Your task to perform on an android device: Search for vegetarian restaurants on Maps Image 0: 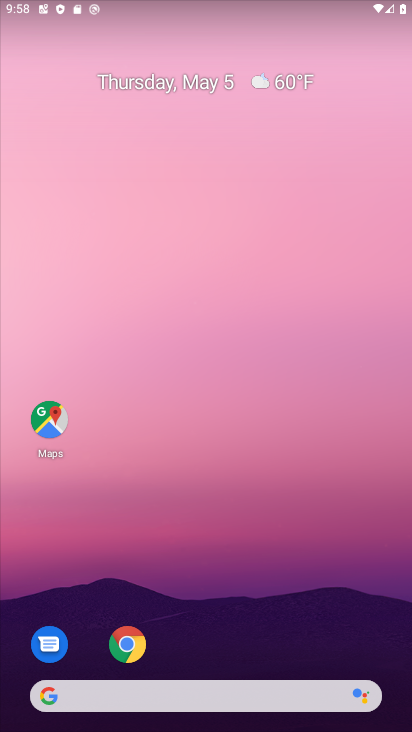
Step 0: click (49, 422)
Your task to perform on an android device: Search for vegetarian restaurants on Maps Image 1: 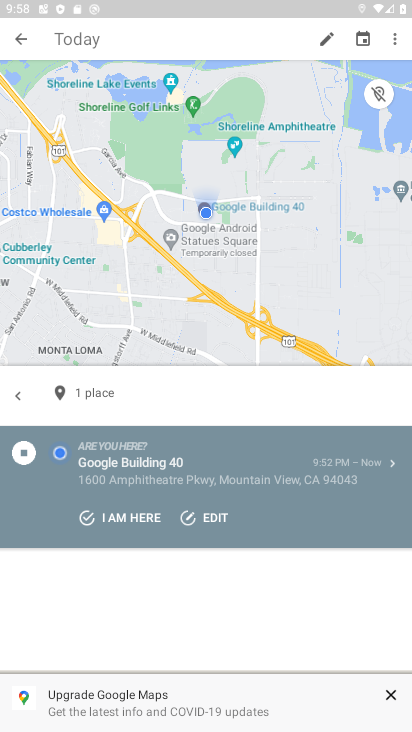
Step 1: press back button
Your task to perform on an android device: Search for vegetarian restaurants on Maps Image 2: 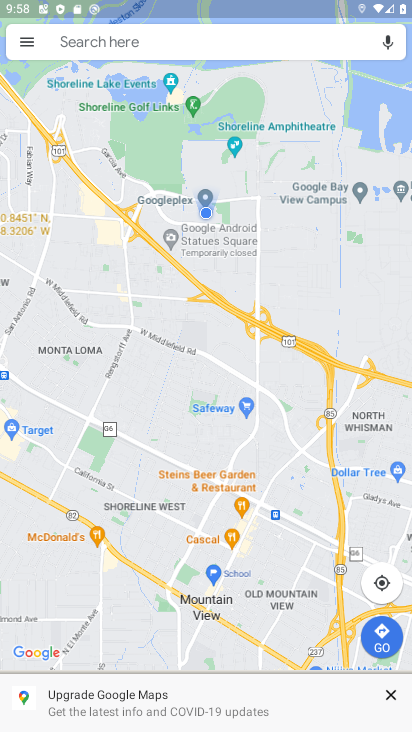
Step 2: click (121, 31)
Your task to perform on an android device: Search for vegetarian restaurants on Maps Image 3: 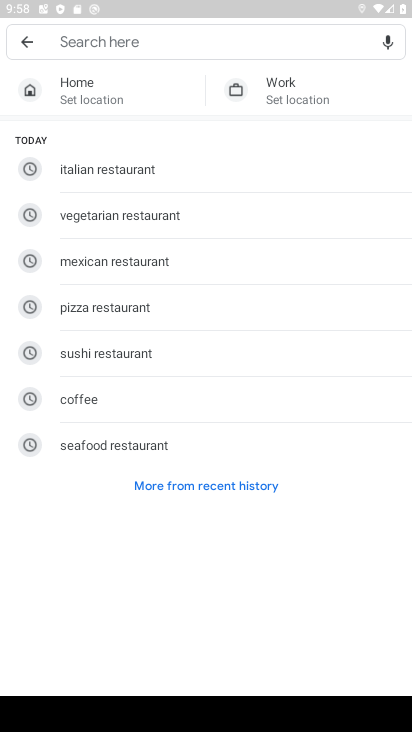
Step 3: click (170, 215)
Your task to perform on an android device: Search for vegetarian restaurants on Maps Image 4: 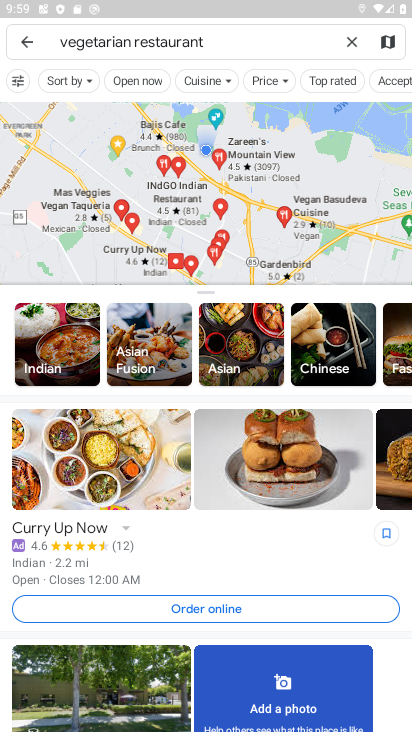
Step 4: task complete